Your task to perform on an android device: Open Yahoo.com Image 0: 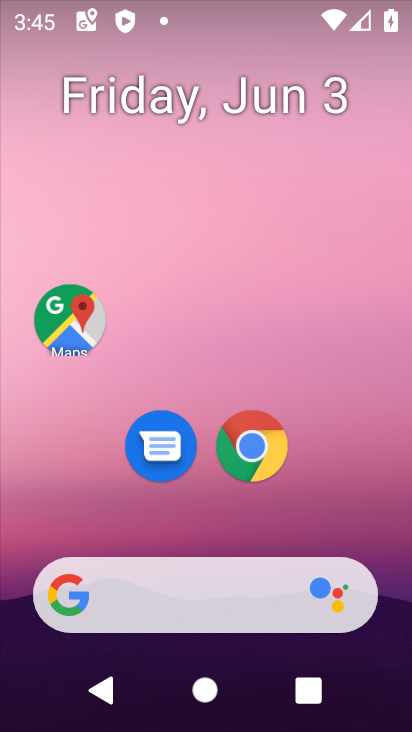
Step 0: task complete